Your task to perform on an android device: When is my next appointment? Image 0: 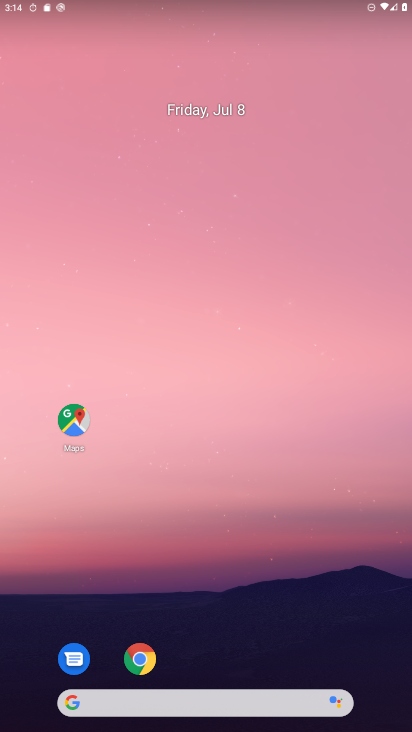
Step 0: drag from (241, 600) to (287, 0)
Your task to perform on an android device: When is my next appointment? Image 1: 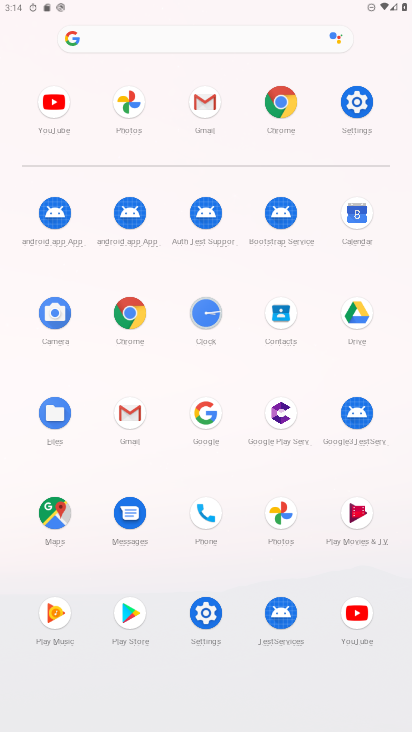
Step 1: click (348, 205)
Your task to perform on an android device: When is my next appointment? Image 2: 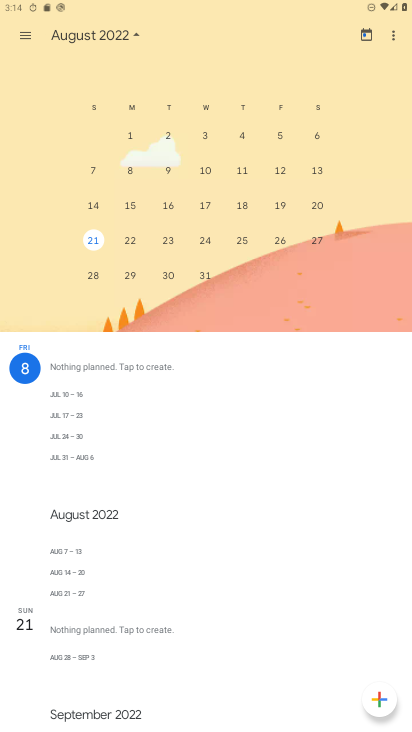
Step 2: drag from (25, 264) to (368, 318)
Your task to perform on an android device: When is my next appointment? Image 3: 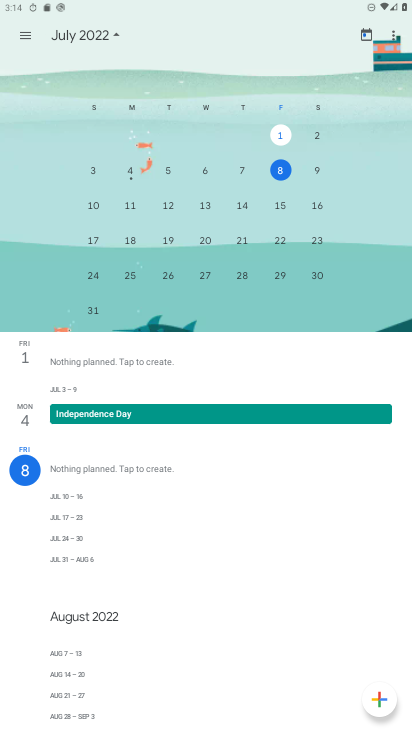
Step 3: click (279, 170)
Your task to perform on an android device: When is my next appointment? Image 4: 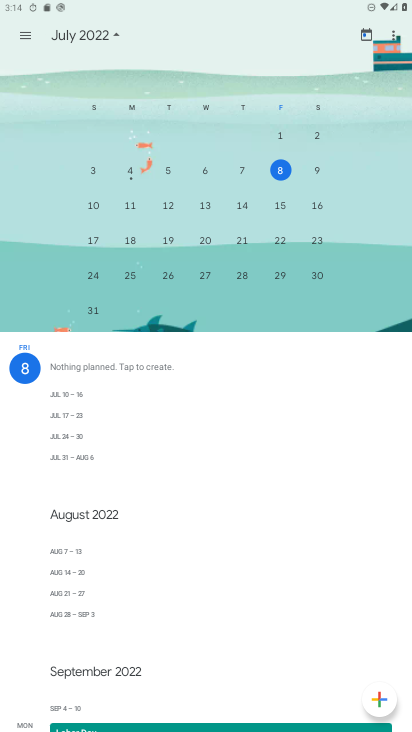
Step 4: click (279, 170)
Your task to perform on an android device: When is my next appointment? Image 5: 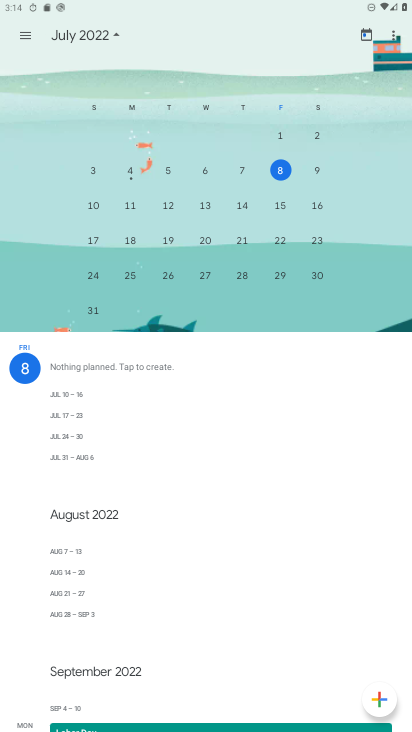
Step 5: task complete